Your task to perform on an android device: turn off improve location accuracy Image 0: 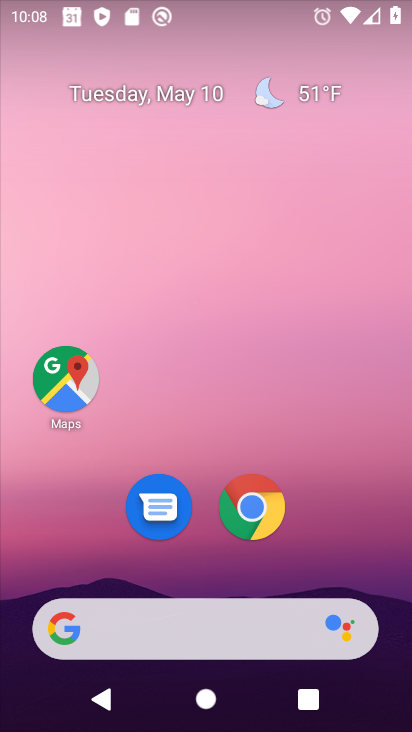
Step 0: drag from (212, 558) to (217, 56)
Your task to perform on an android device: turn off improve location accuracy Image 1: 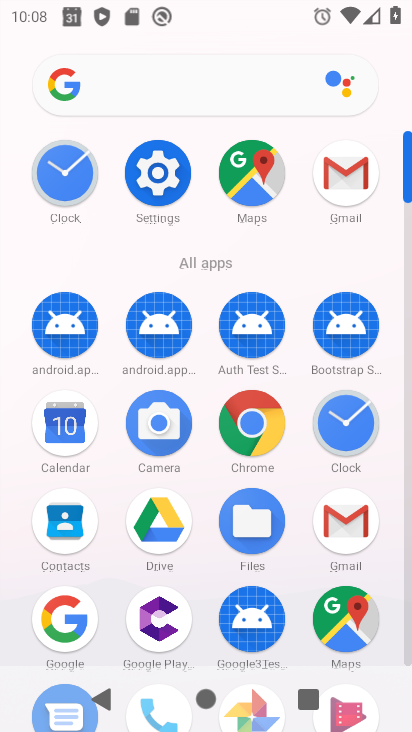
Step 1: click (168, 184)
Your task to perform on an android device: turn off improve location accuracy Image 2: 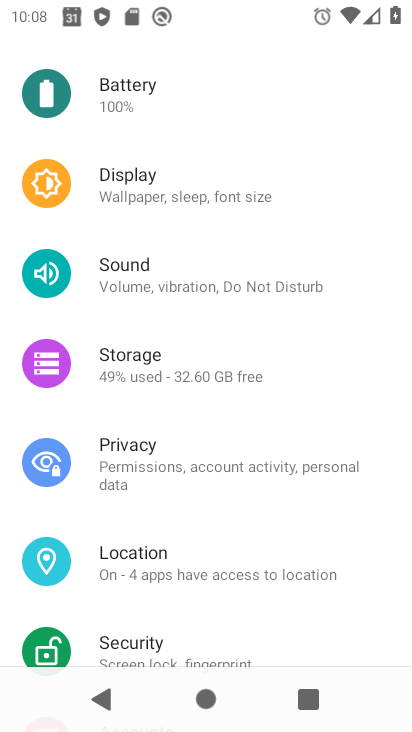
Step 2: click (179, 583)
Your task to perform on an android device: turn off improve location accuracy Image 3: 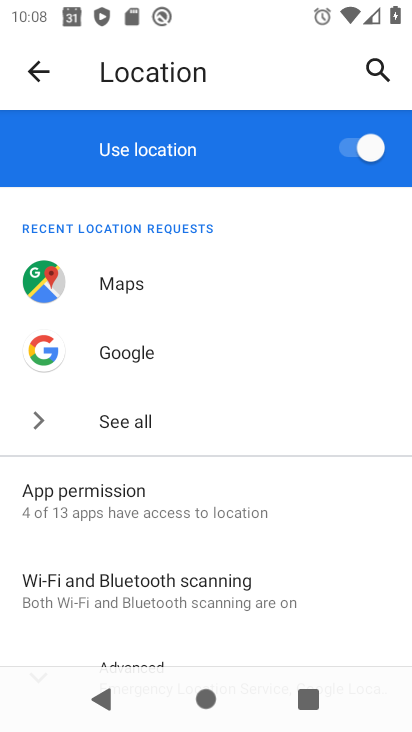
Step 3: drag from (156, 594) to (153, 183)
Your task to perform on an android device: turn off improve location accuracy Image 4: 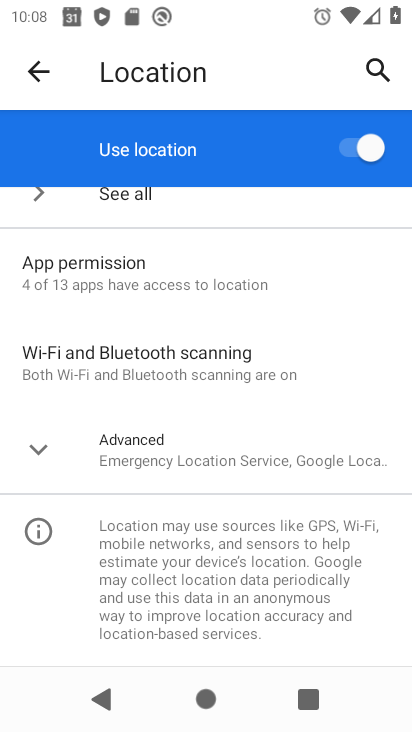
Step 4: click (151, 465)
Your task to perform on an android device: turn off improve location accuracy Image 5: 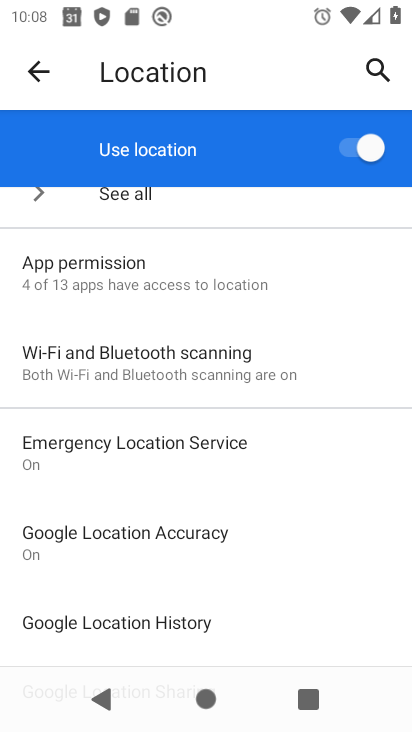
Step 5: click (164, 546)
Your task to perform on an android device: turn off improve location accuracy Image 6: 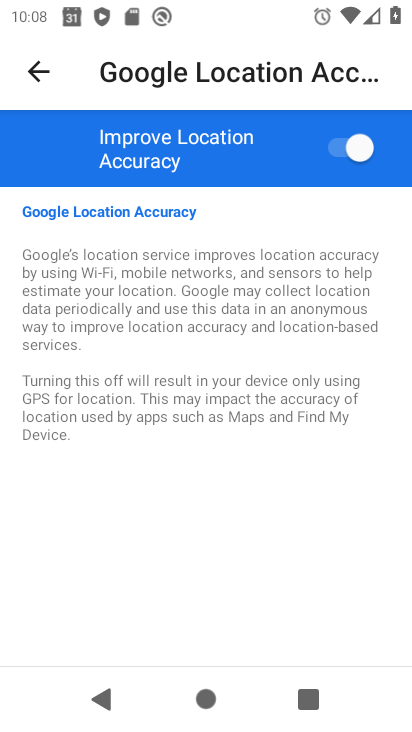
Step 6: click (353, 145)
Your task to perform on an android device: turn off improve location accuracy Image 7: 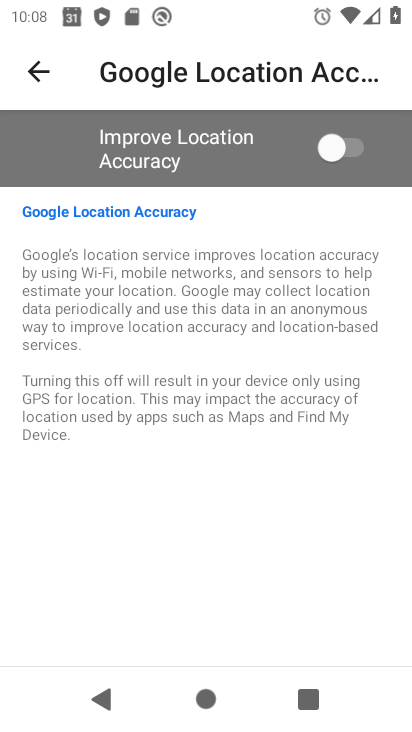
Step 7: task complete